Your task to perform on an android device: delete browsing data in the chrome app Image 0: 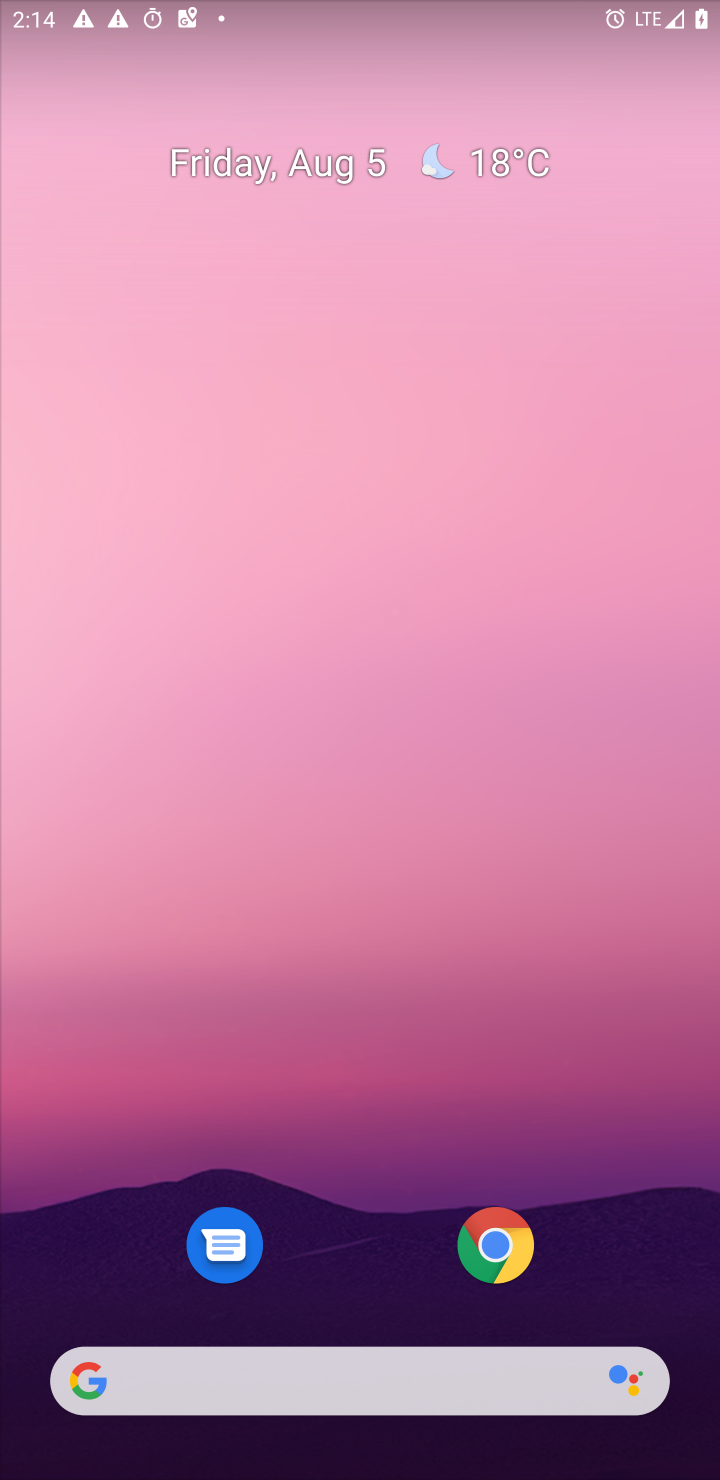
Step 0: press home button
Your task to perform on an android device: delete browsing data in the chrome app Image 1: 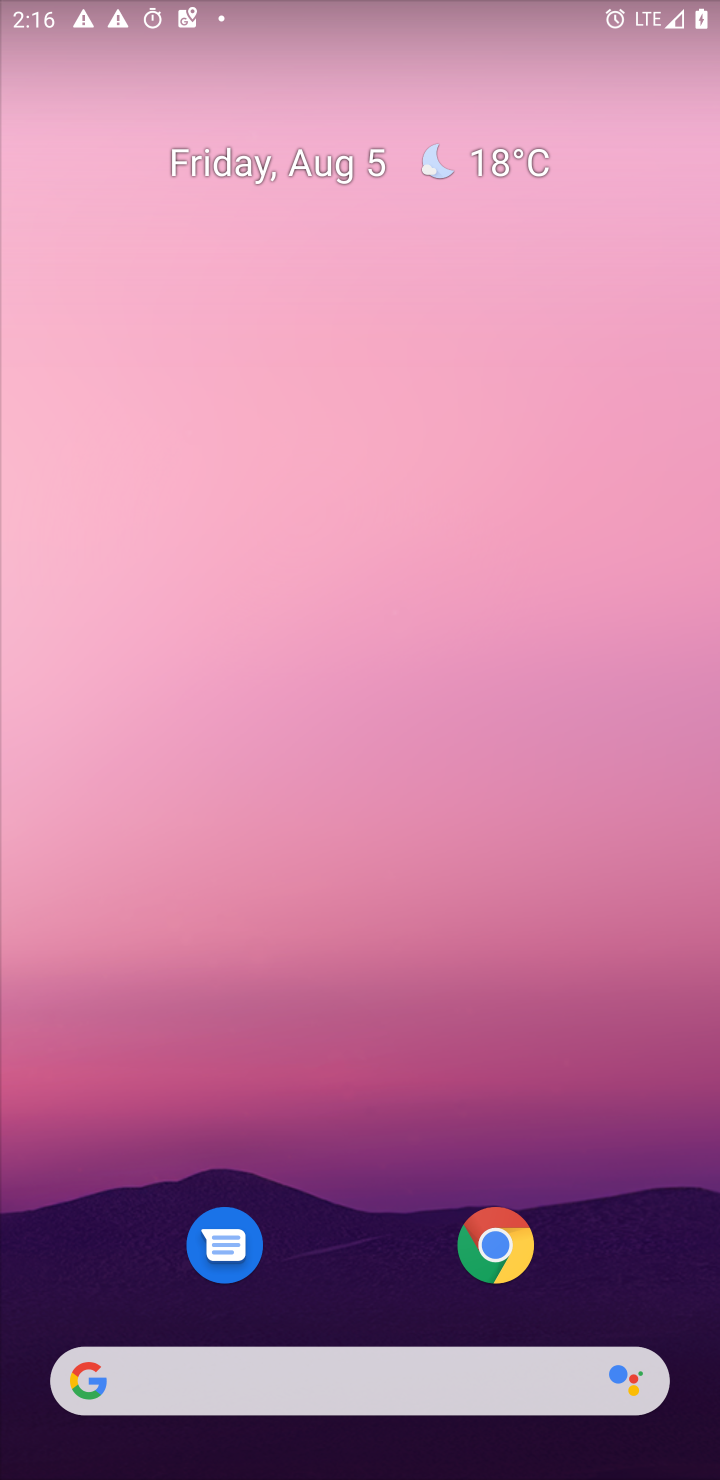
Step 1: drag from (390, 1065) to (442, 206)
Your task to perform on an android device: delete browsing data in the chrome app Image 2: 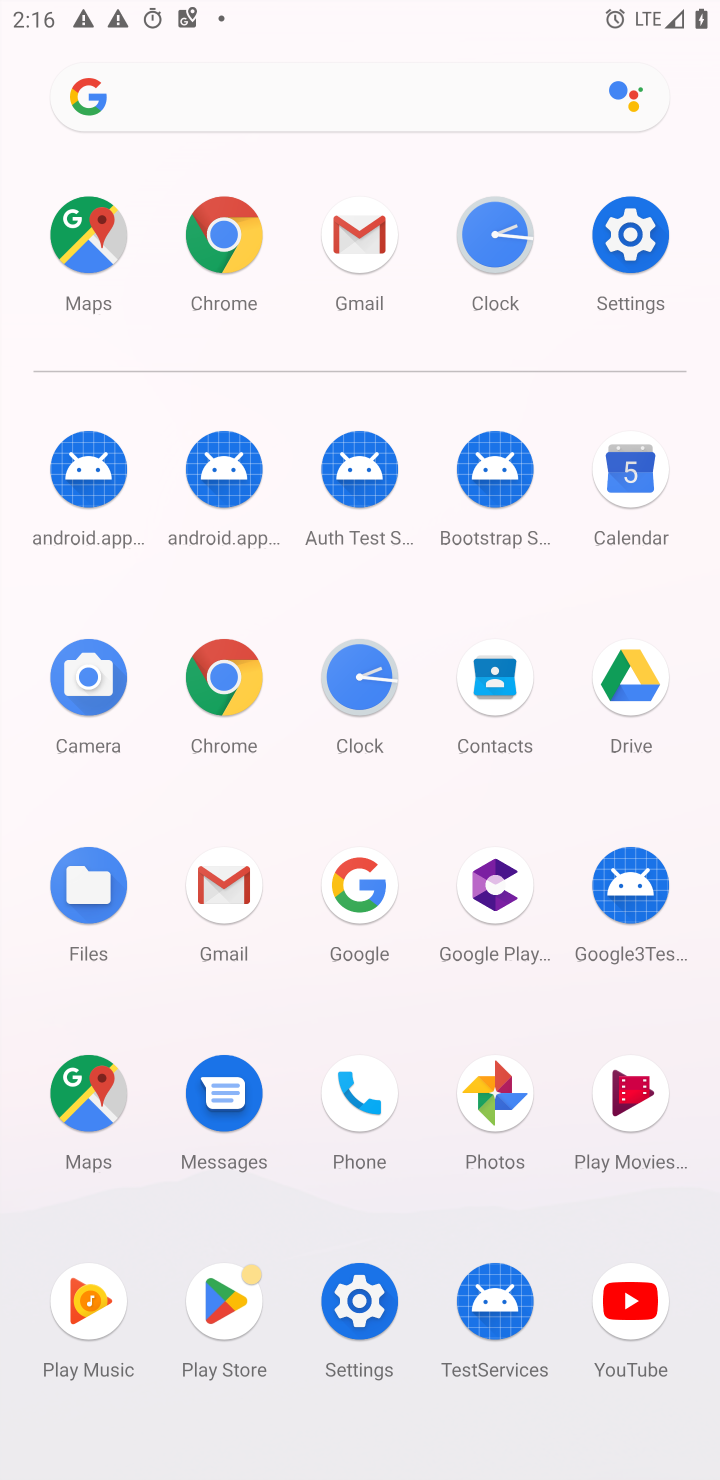
Step 2: click (210, 238)
Your task to perform on an android device: delete browsing data in the chrome app Image 3: 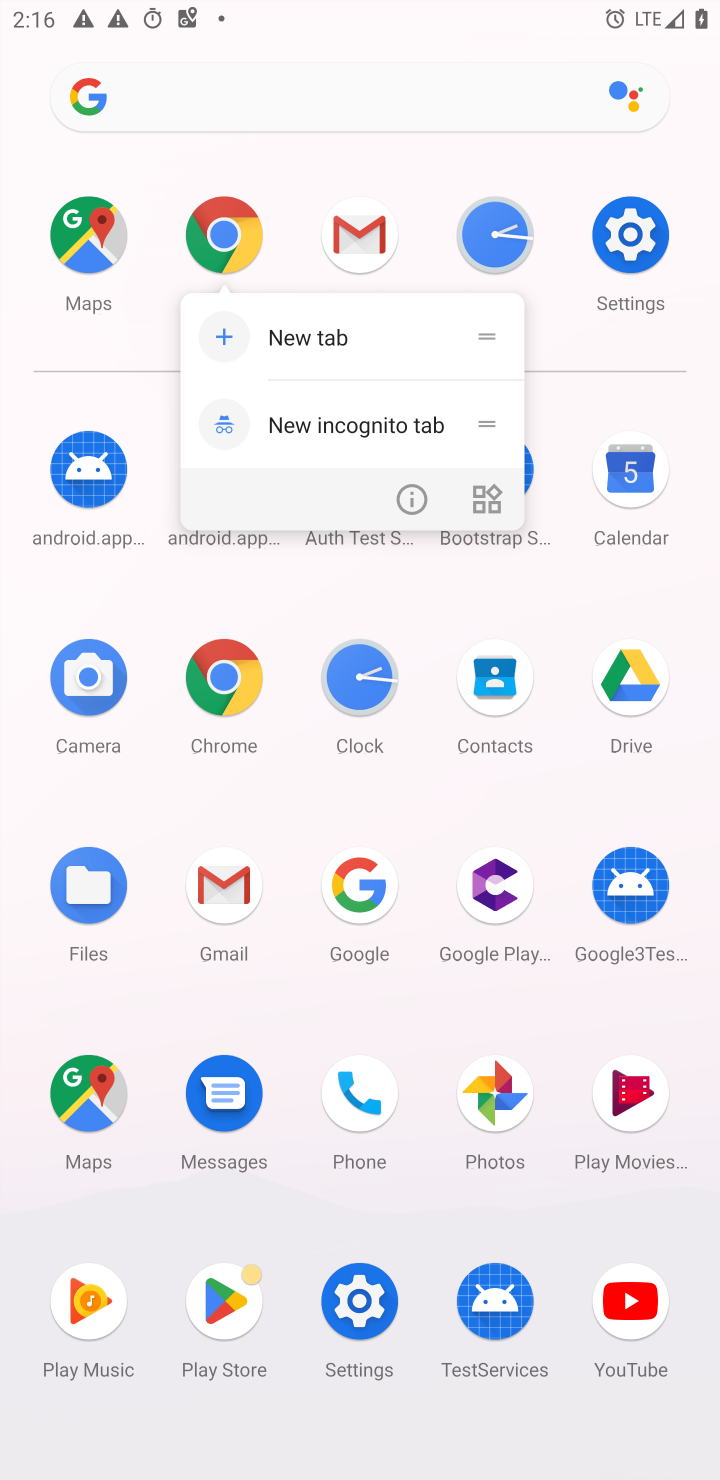
Step 3: click (216, 241)
Your task to perform on an android device: delete browsing data in the chrome app Image 4: 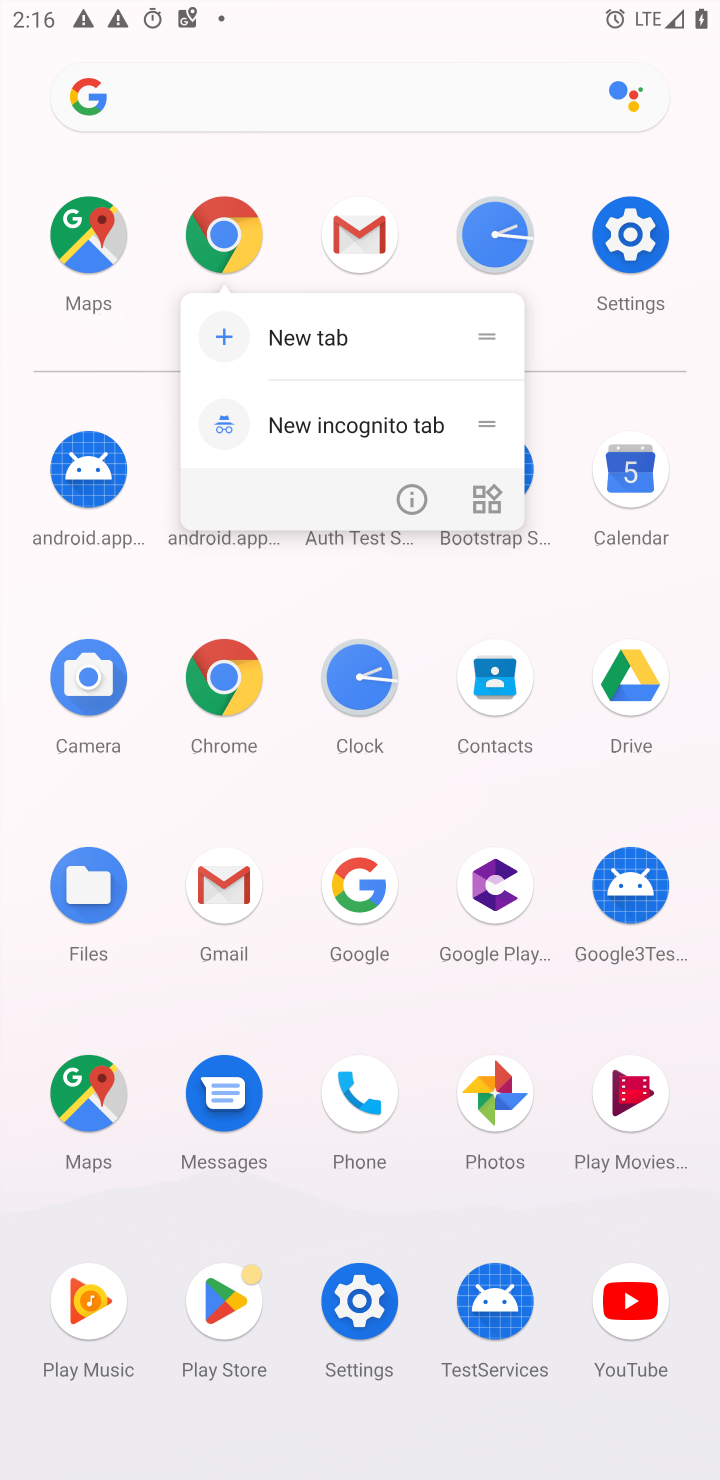
Step 4: click (228, 213)
Your task to perform on an android device: delete browsing data in the chrome app Image 5: 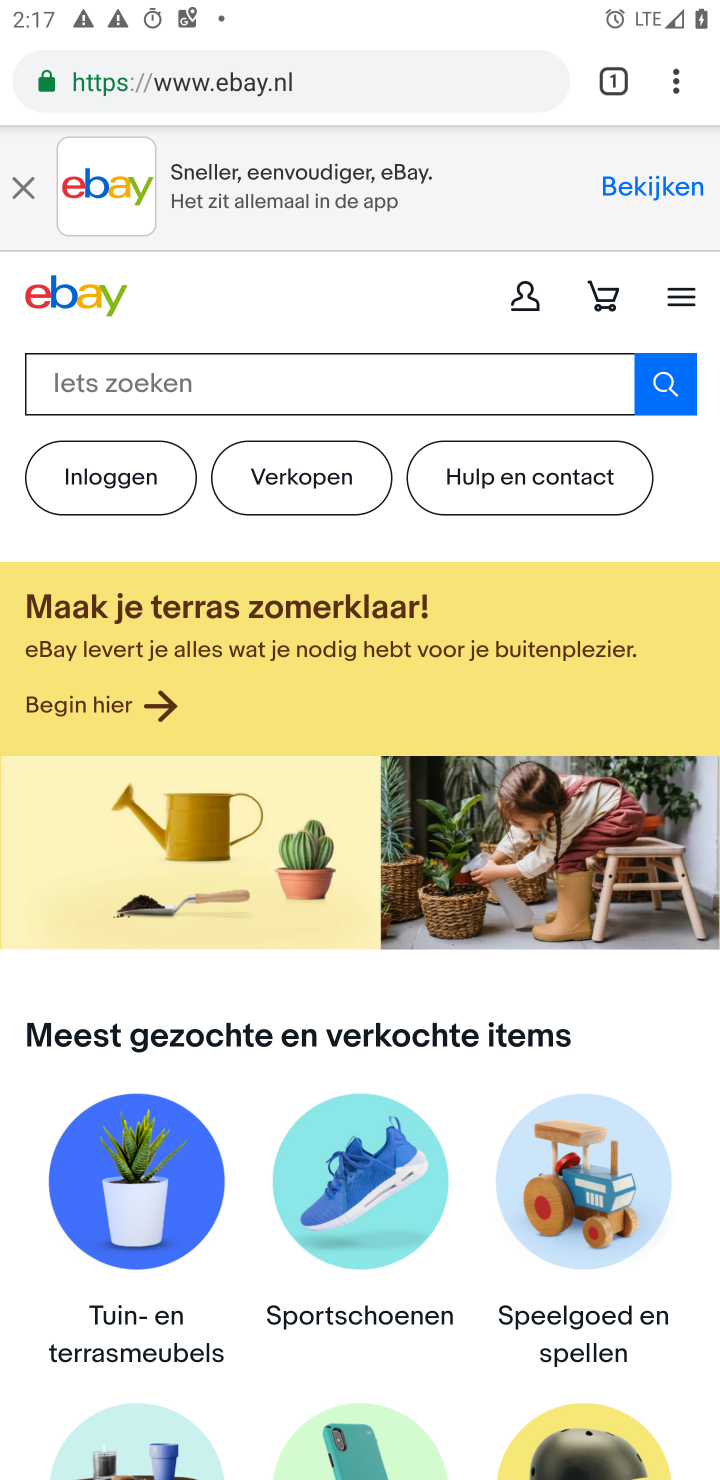
Step 5: drag from (679, 70) to (371, 1075)
Your task to perform on an android device: delete browsing data in the chrome app Image 6: 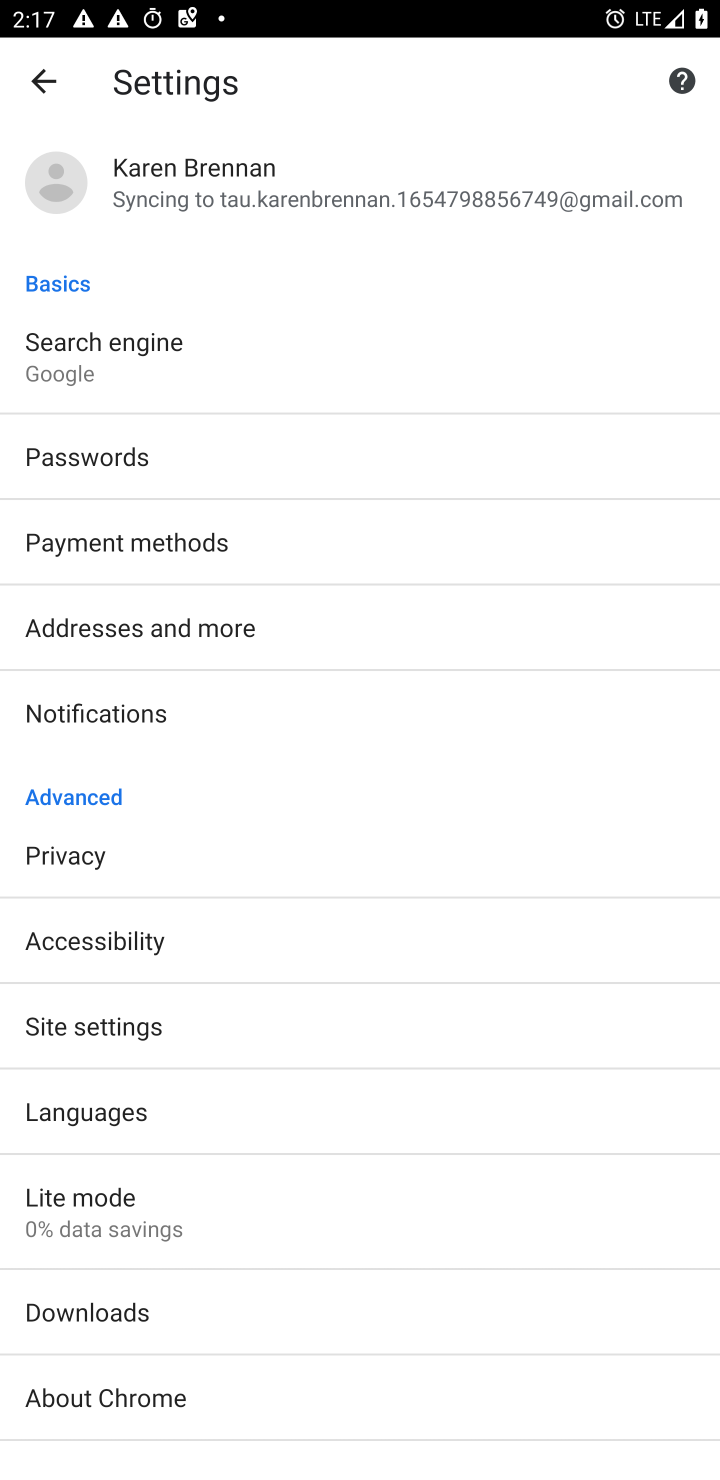
Step 6: click (35, 842)
Your task to perform on an android device: delete browsing data in the chrome app Image 7: 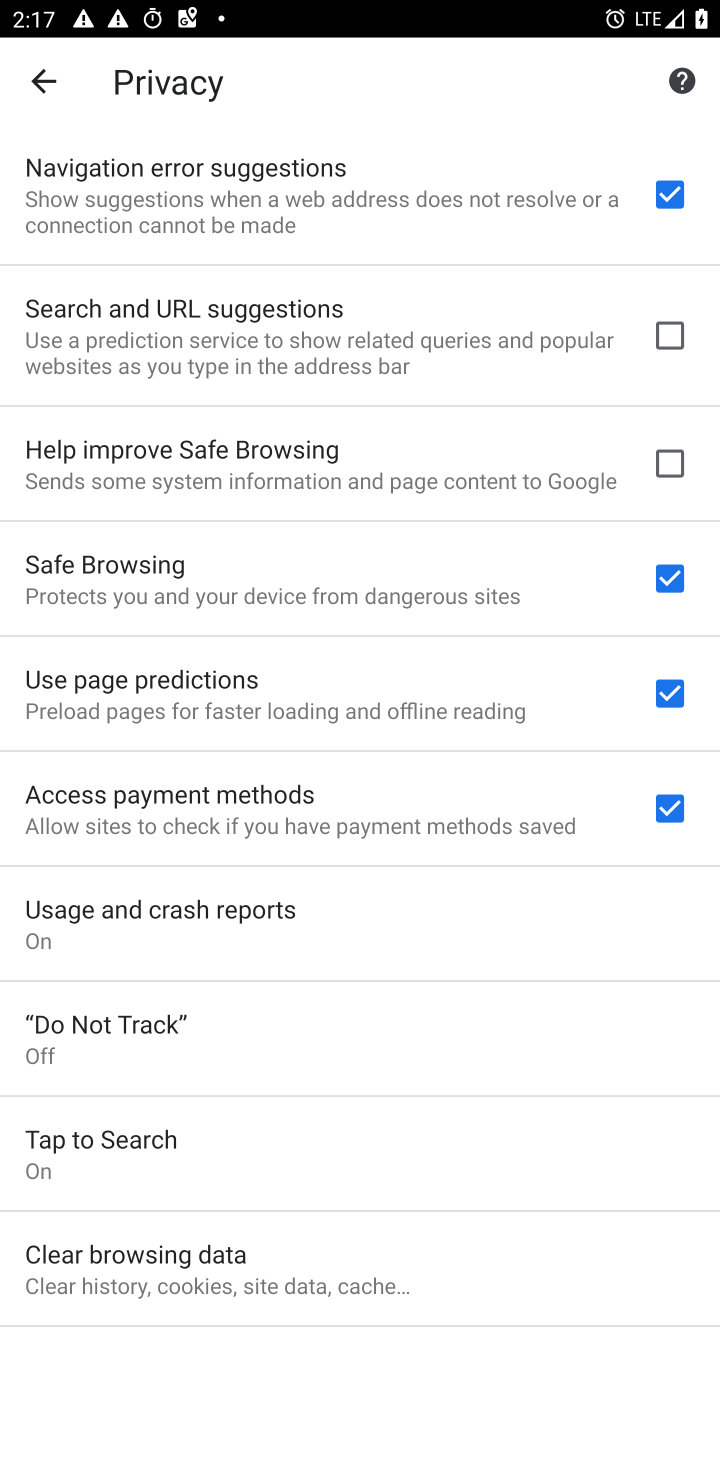
Step 7: click (147, 1258)
Your task to perform on an android device: delete browsing data in the chrome app Image 8: 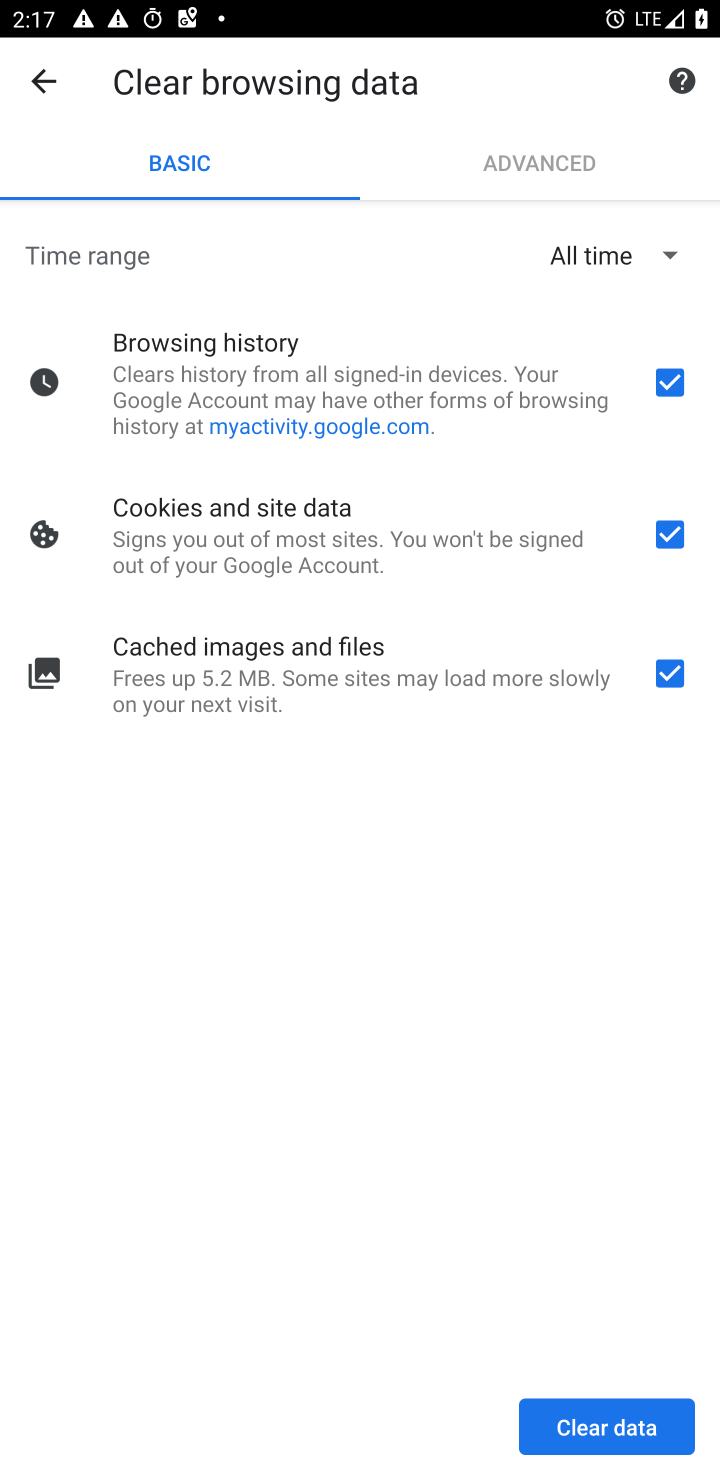
Step 8: click (573, 1439)
Your task to perform on an android device: delete browsing data in the chrome app Image 9: 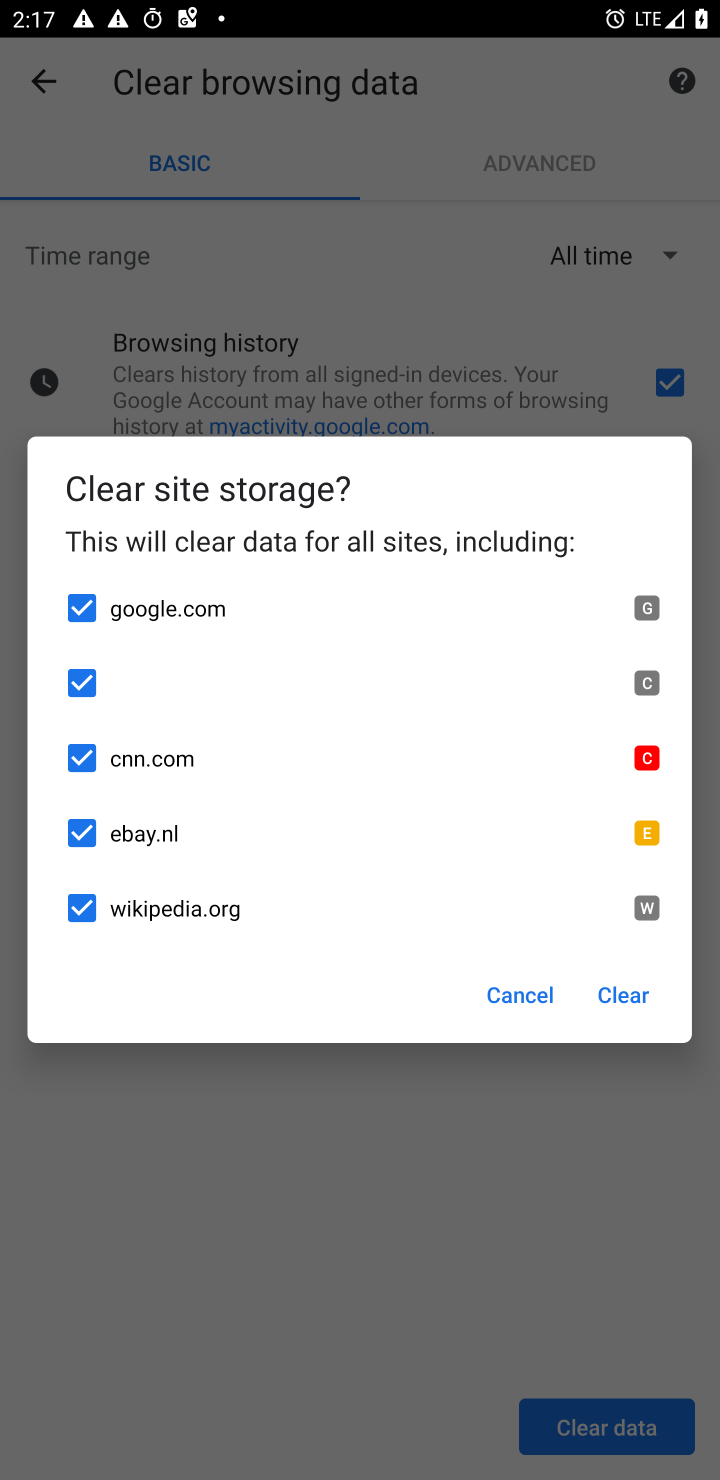
Step 9: click (617, 997)
Your task to perform on an android device: delete browsing data in the chrome app Image 10: 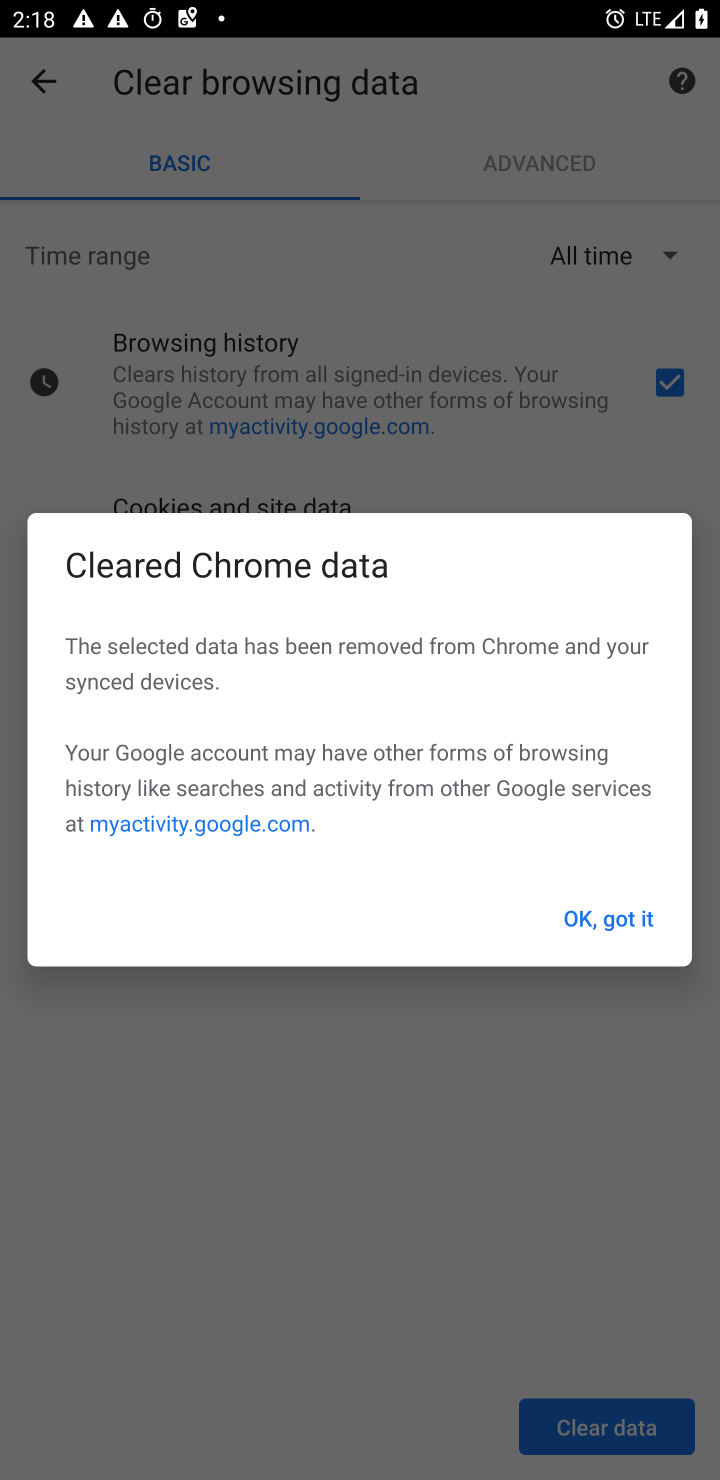
Step 10: click (633, 921)
Your task to perform on an android device: delete browsing data in the chrome app Image 11: 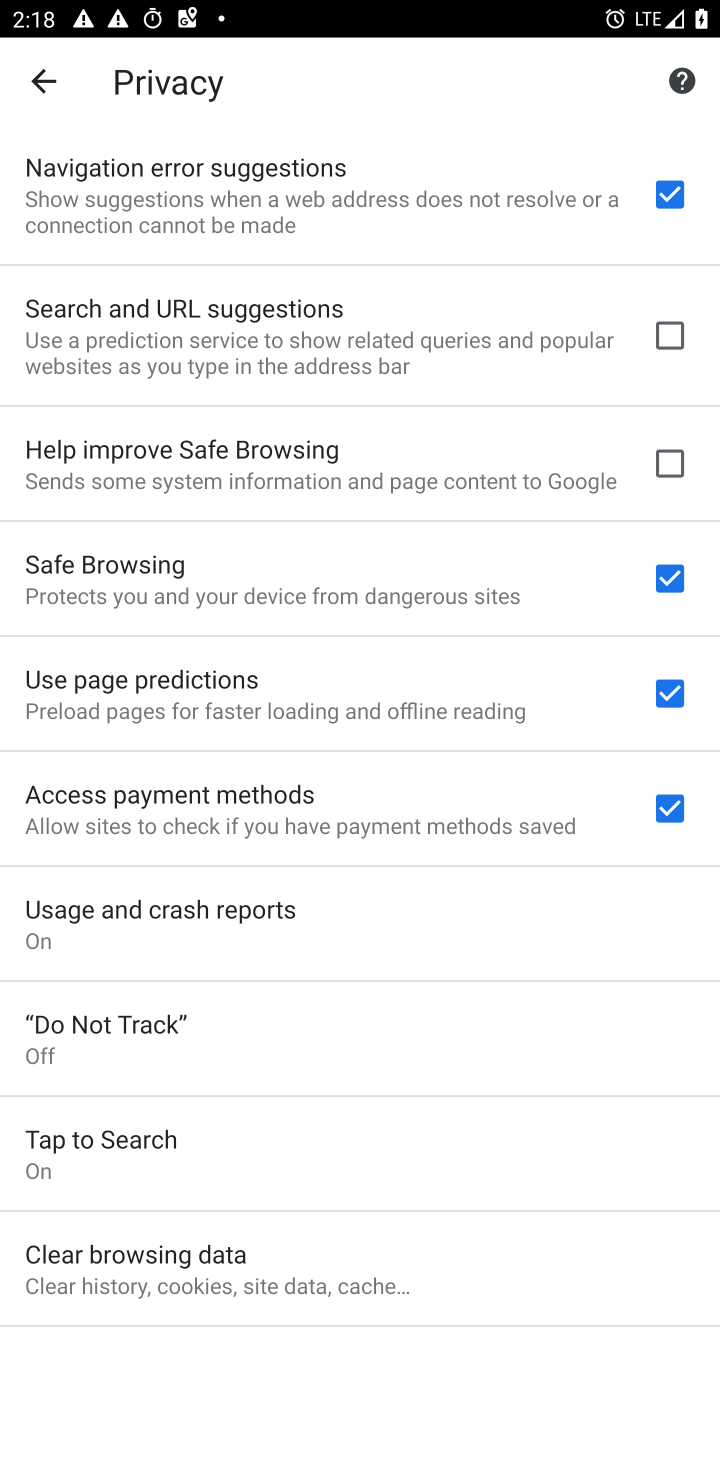
Step 11: task complete